Your task to perform on an android device: turn on bluetooth scan Image 0: 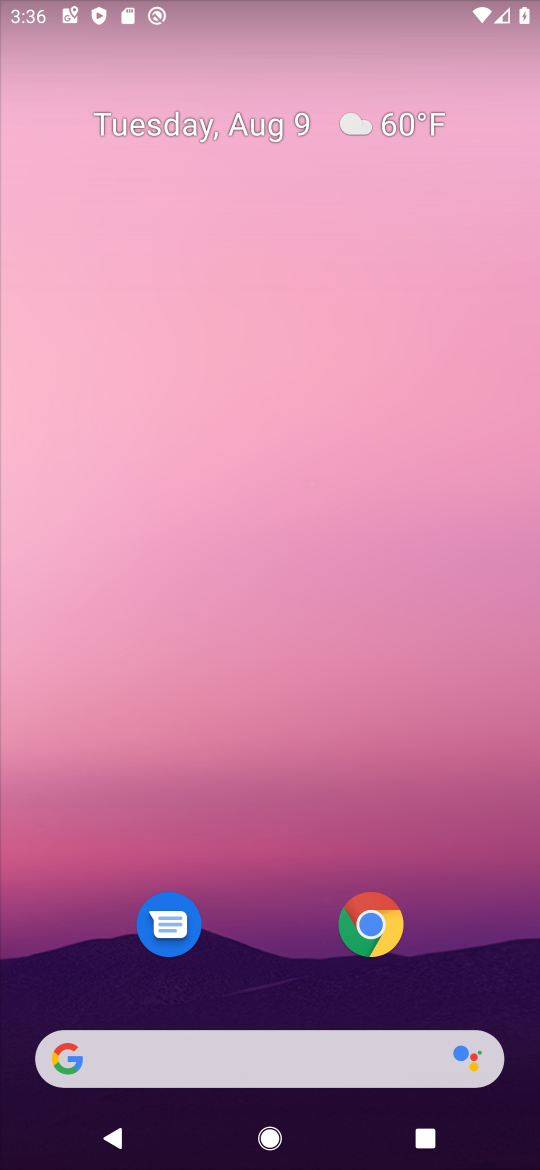
Step 0: drag from (295, 853) to (357, 15)
Your task to perform on an android device: turn on bluetooth scan Image 1: 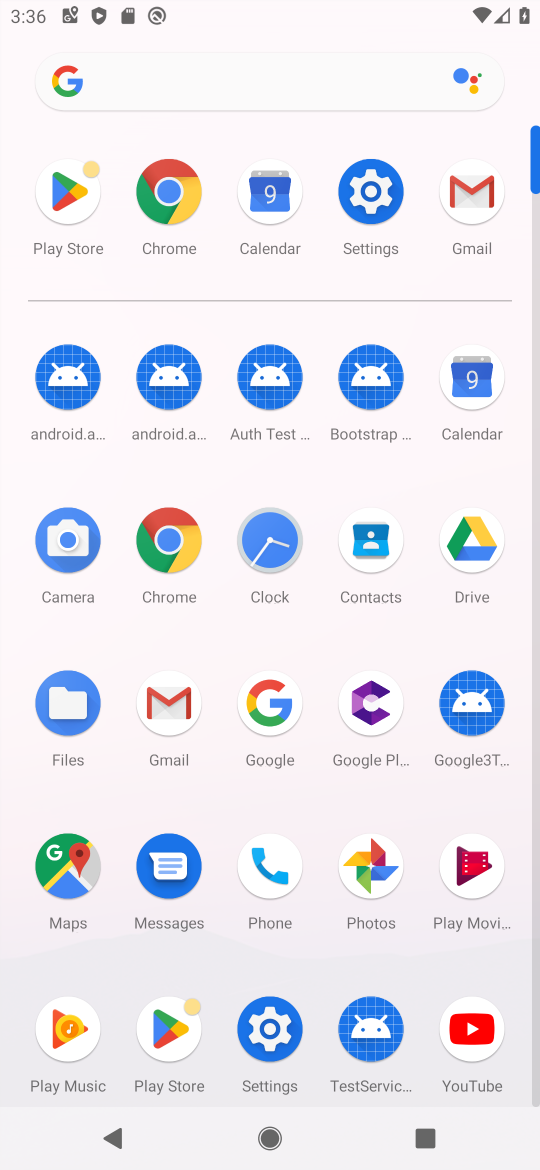
Step 1: click (373, 192)
Your task to perform on an android device: turn on bluetooth scan Image 2: 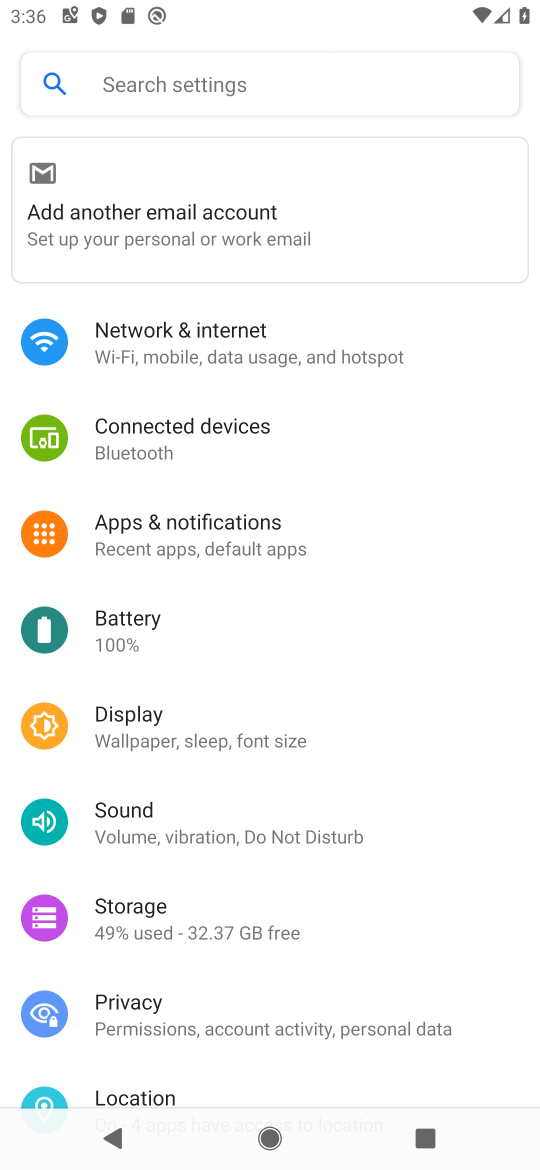
Step 2: drag from (295, 829) to (357, 210)
Your task to perform on an android device: turn on bluetooth scan Image 3: 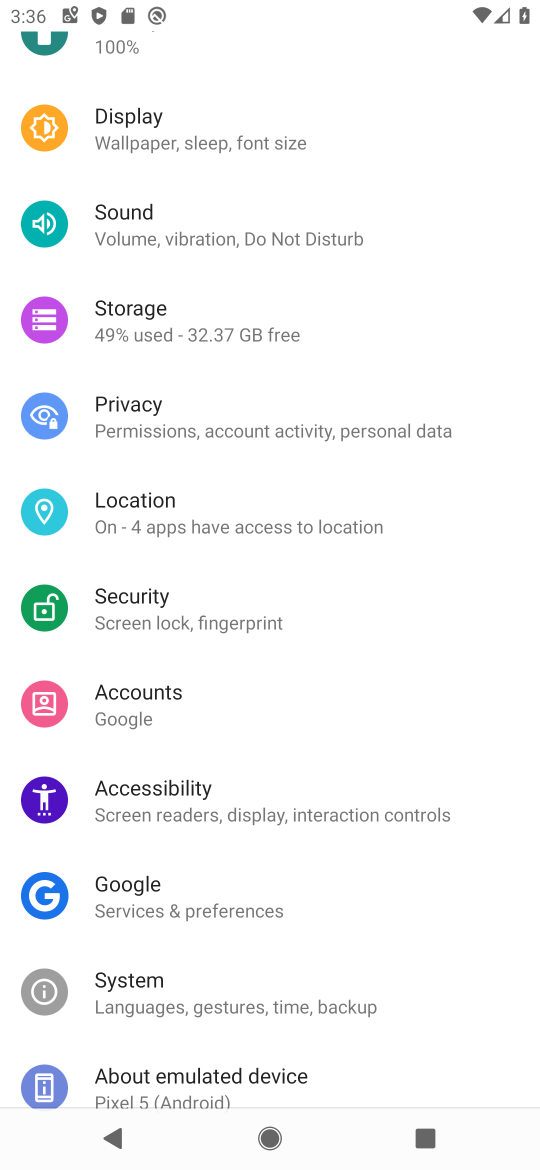
Step 3: click (289, 513)
Your task to perform on an android device: turn on bluetooth scan Image 4: 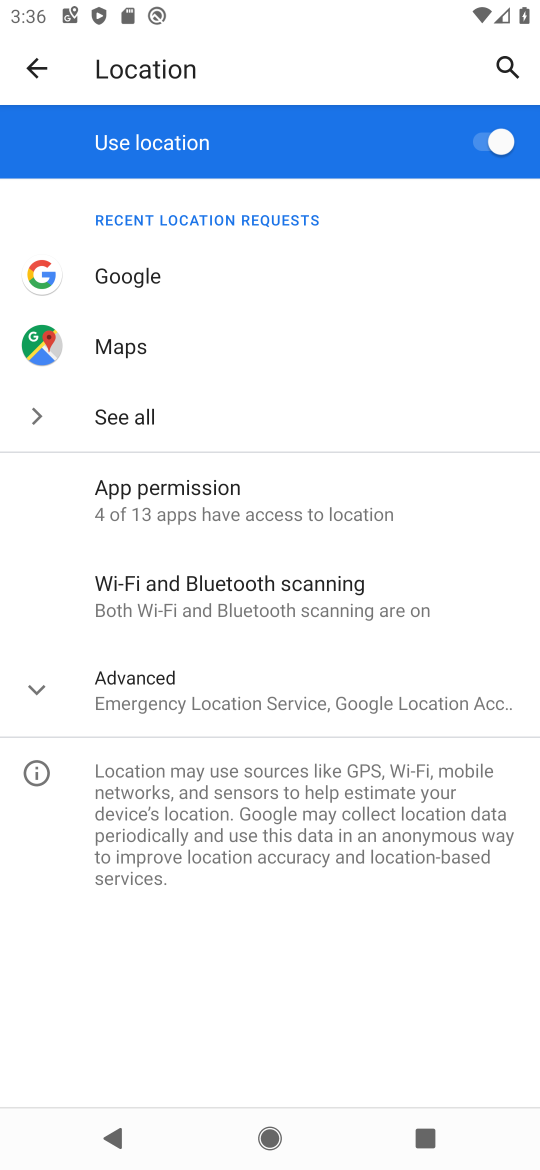
Step 4: click (361, 592)
Your task to perform on an android device: turn on bluetooth scan Image 5: 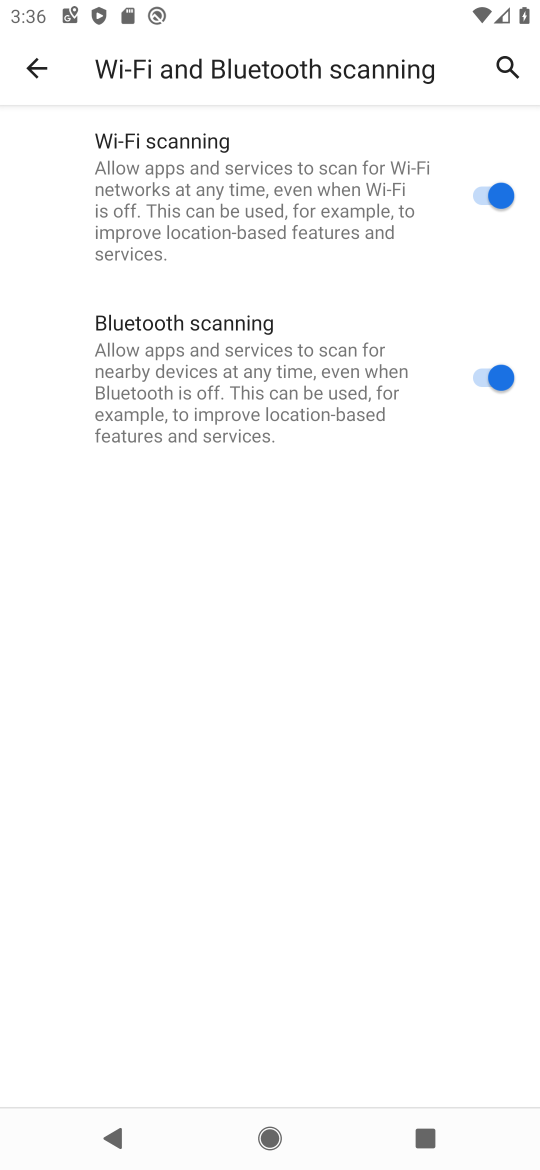
Step 5: task complete